Your task to perform on an android device: Open my contact list Image 0: 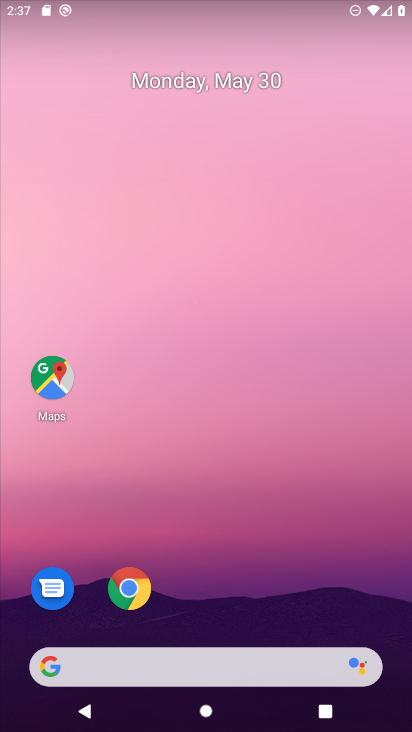
Step 0: drag from (254, 622) to (243, 270)
Your task to perform on an android device: Open my contact list Image 1: 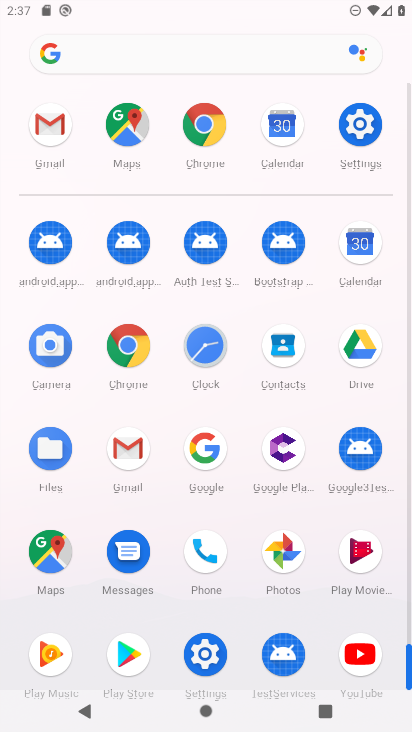
Step 1: click (211, 553)
Your task to perform on an android device: Open my contact list Image 2: 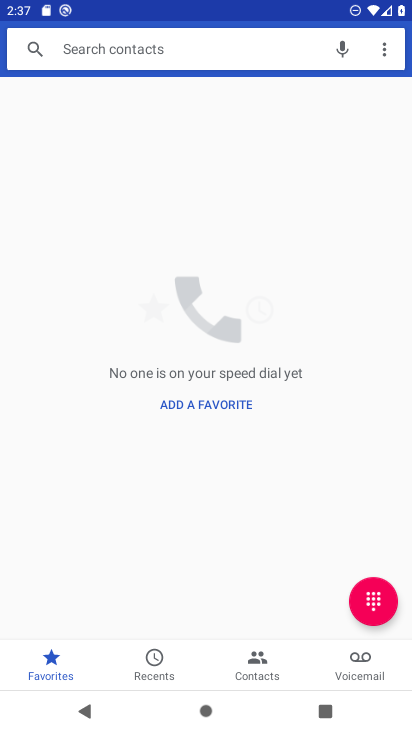
Step 2: click (256, 669)
Your task to perform on an android device: Open my contact list Image 3: 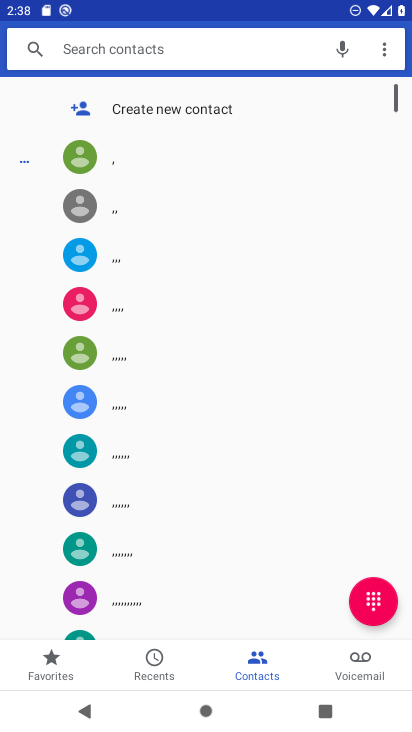
Step 3: task complete